Your task to perform on an android device: open app "Google Play Games" Image 0: 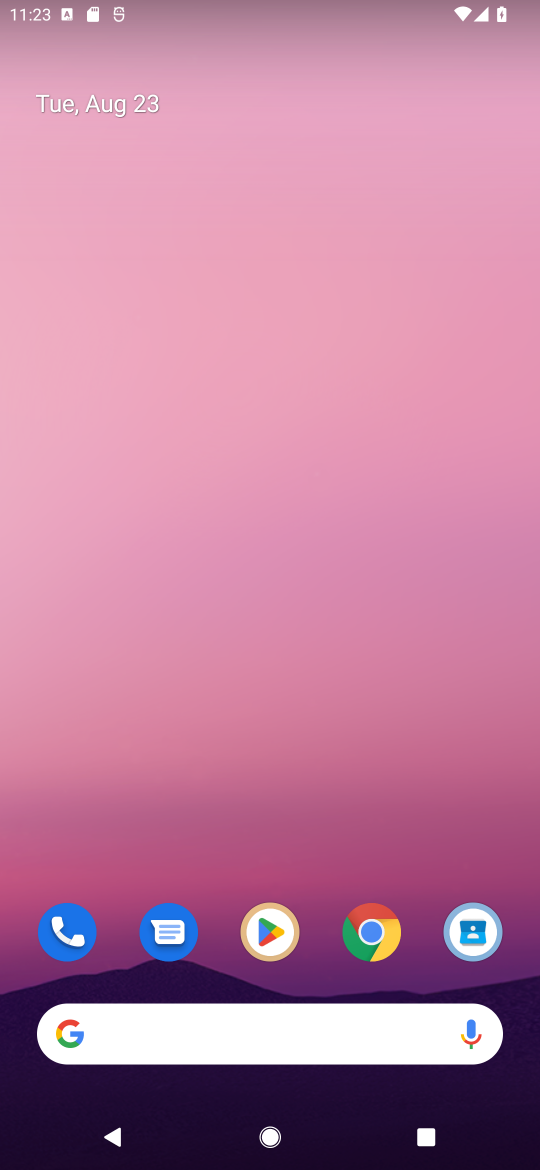
Step 0: click (275, 932)
Your task to perform on an android device: open app "Google Play Games" Image 1: 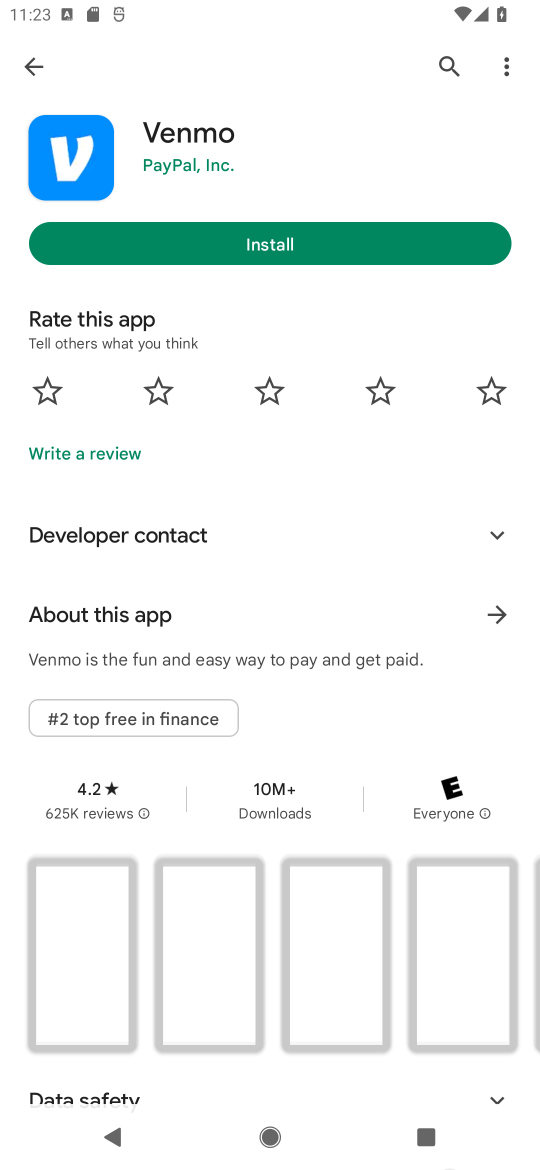
Step 1: click (445, 43)
Your task to perform on an android device: open app "Google Play Games" Image 2: 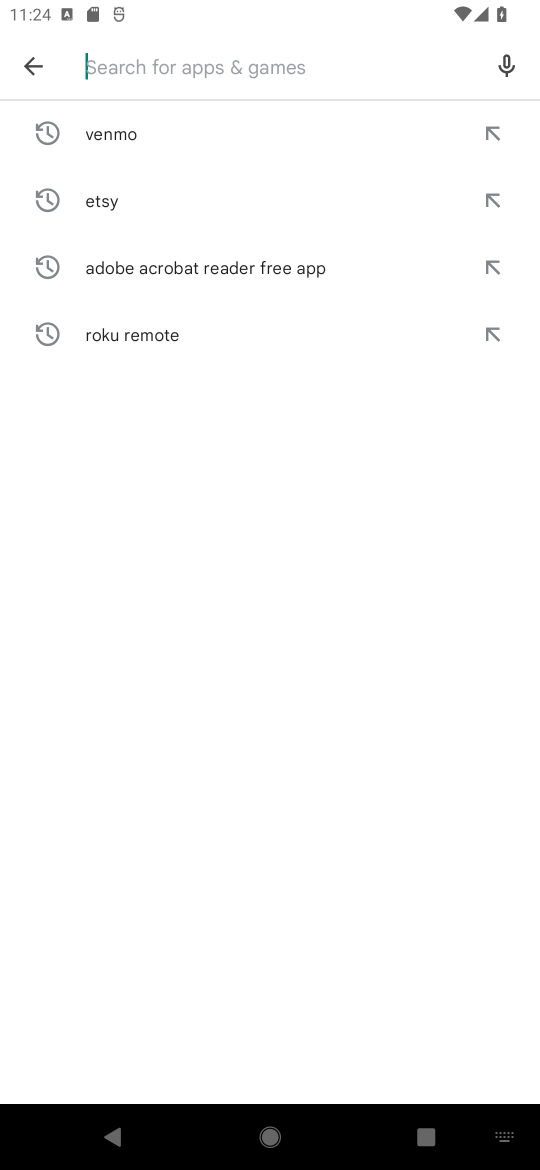
Step 2: click (196, 68)
Your task to perform on an android device: open app "Google Play Games" Image 3: 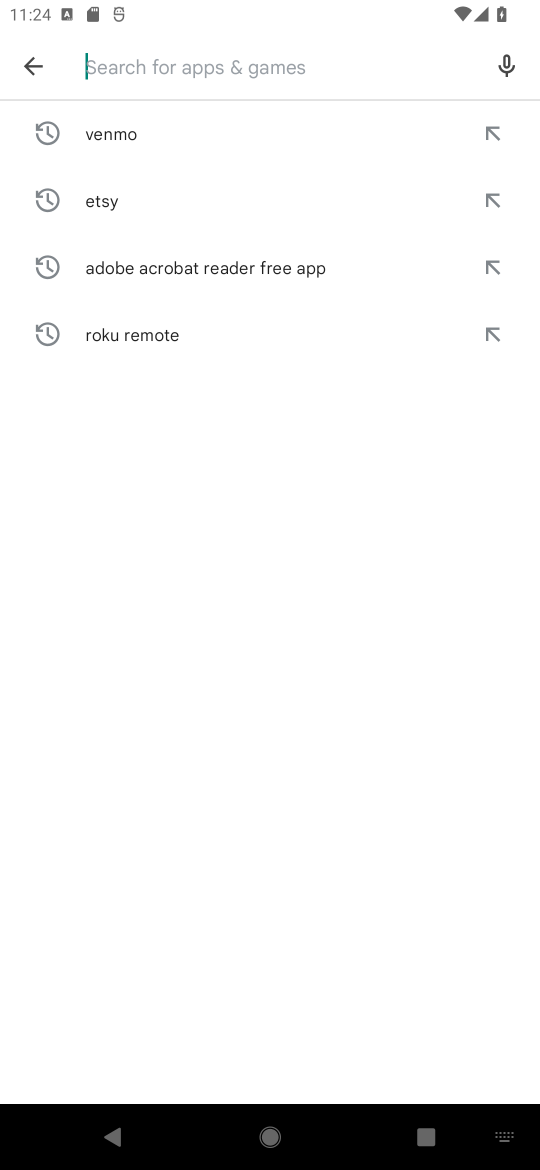
Step 3: type "Google Play Games"
Your task to perform on an android device: open app "Google Play Games" Image 4: 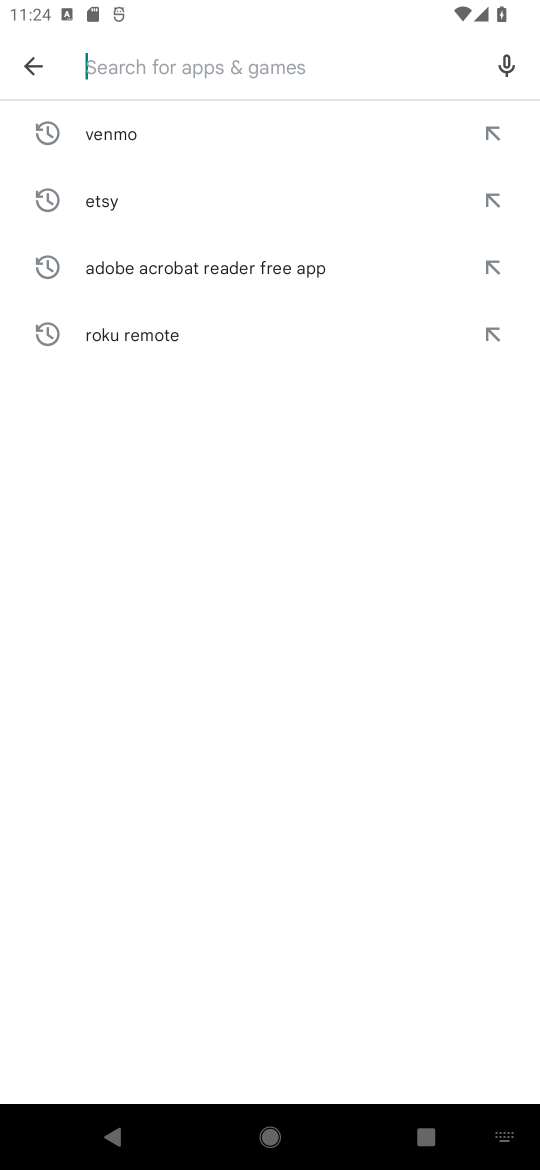
Step 4: click (483, 757)
Your task to perform on an android device: open app "Google Play Games" Image 5: 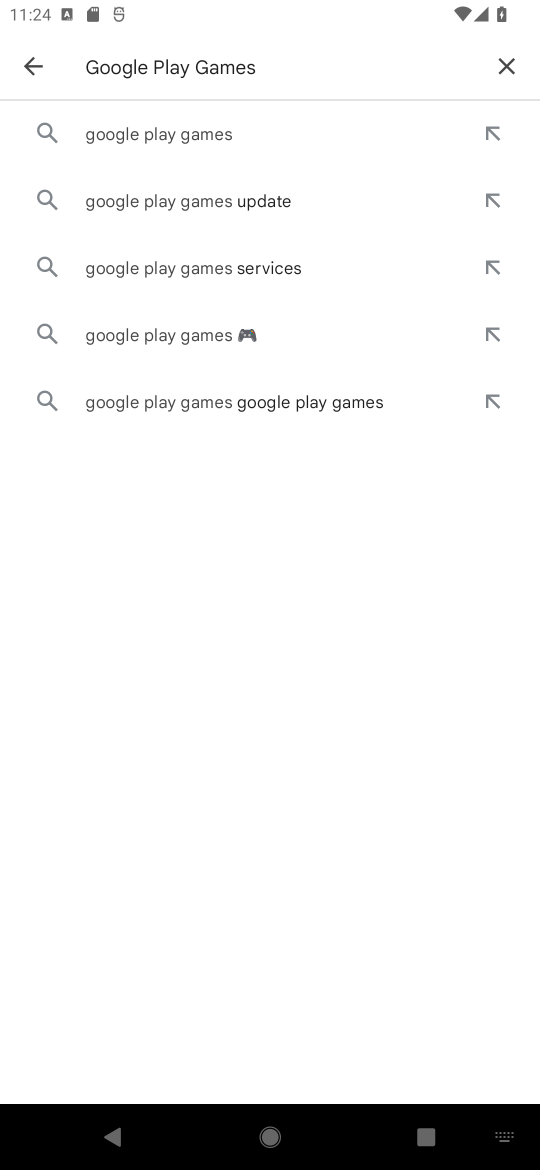
Step 5: click (129, 149)
Your task to perform on an android device: open app "Google Play Games" Image 6: 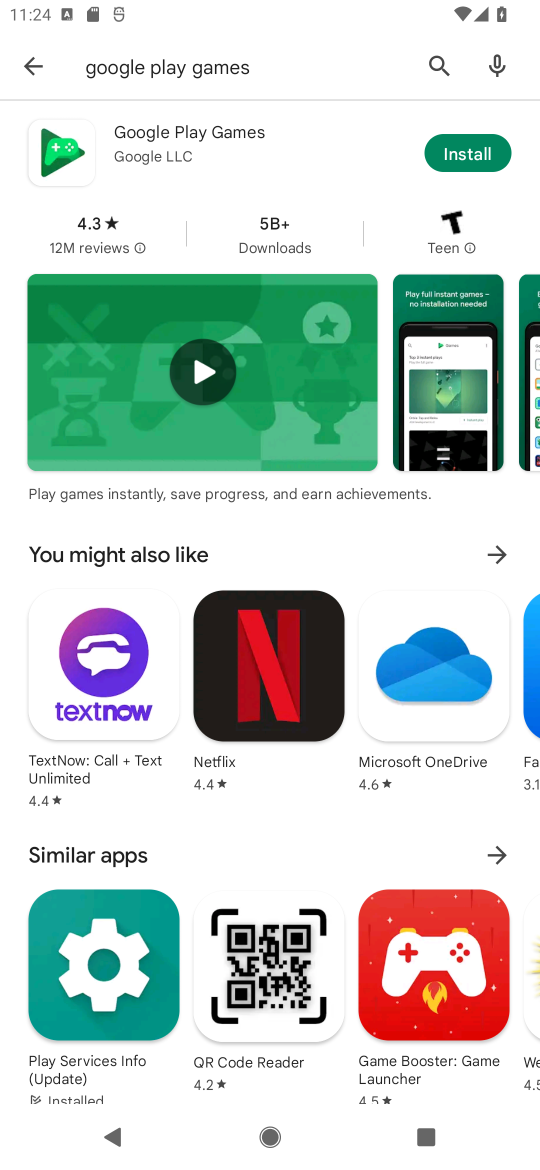
Step 6: task complete